Your task to perform on an android device: install app "Google Drive" Image 0: 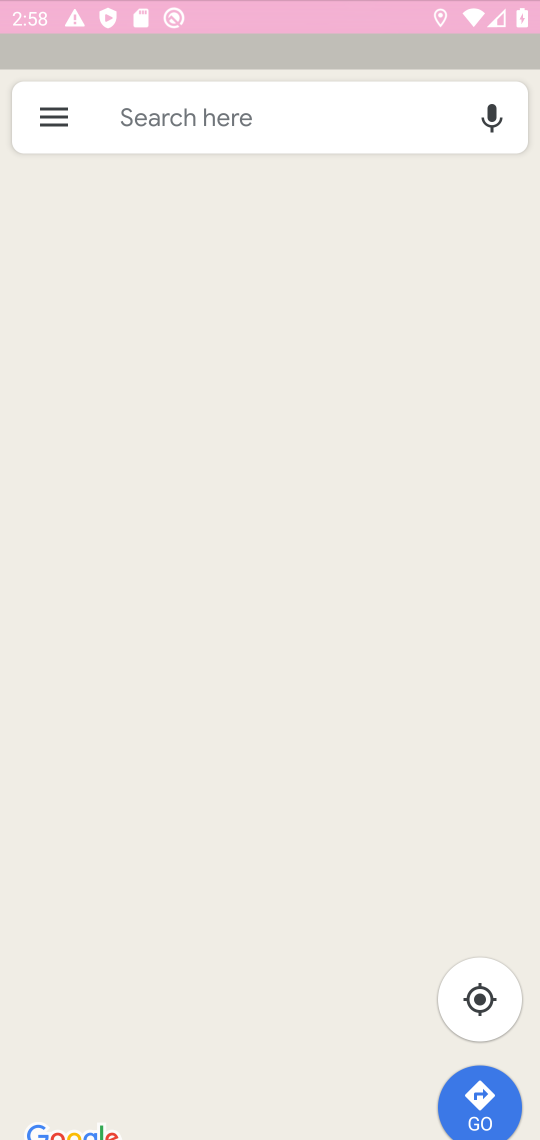
Step 0: click (40, 80)
Your task to perform on an android device: install app "Google Drive" Image 1: 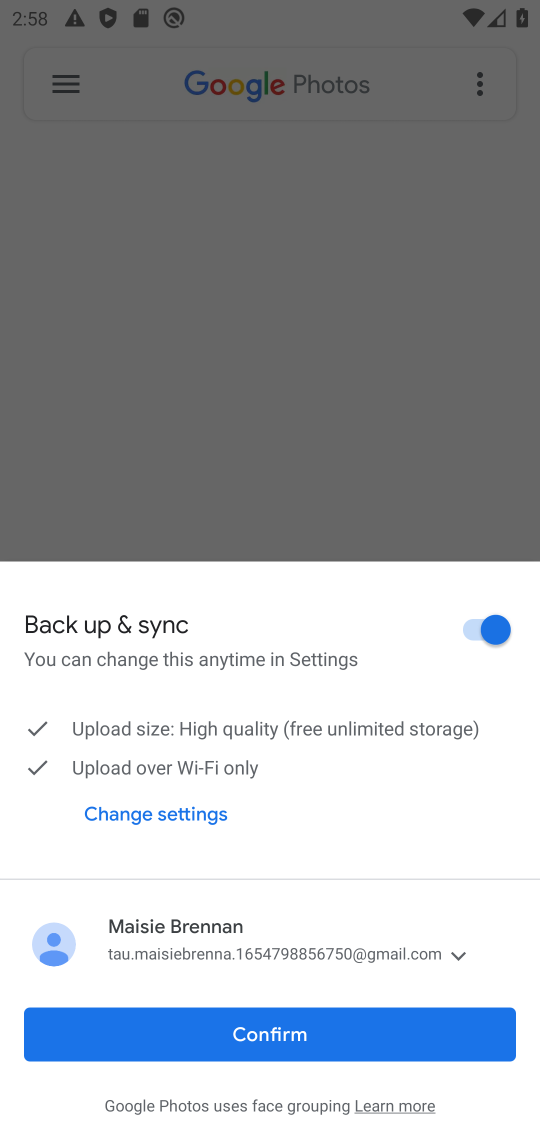
Step 1: press back button
Your task to perform on an android device: install app "Google Drive" Image 2: 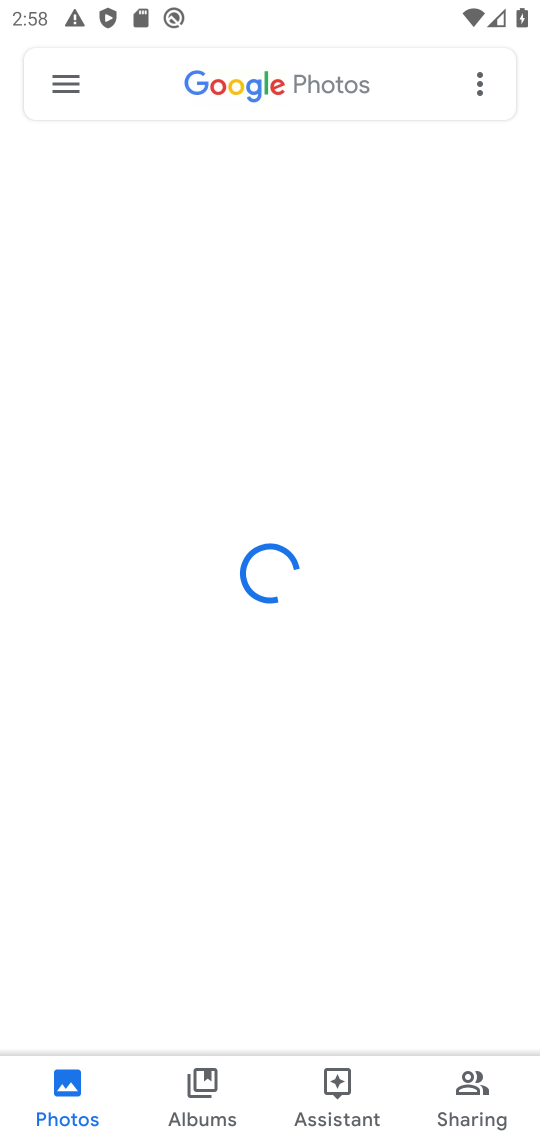
Step 2: press back button
Your task to perform on an android device: install app "Google Drive" Image 3: 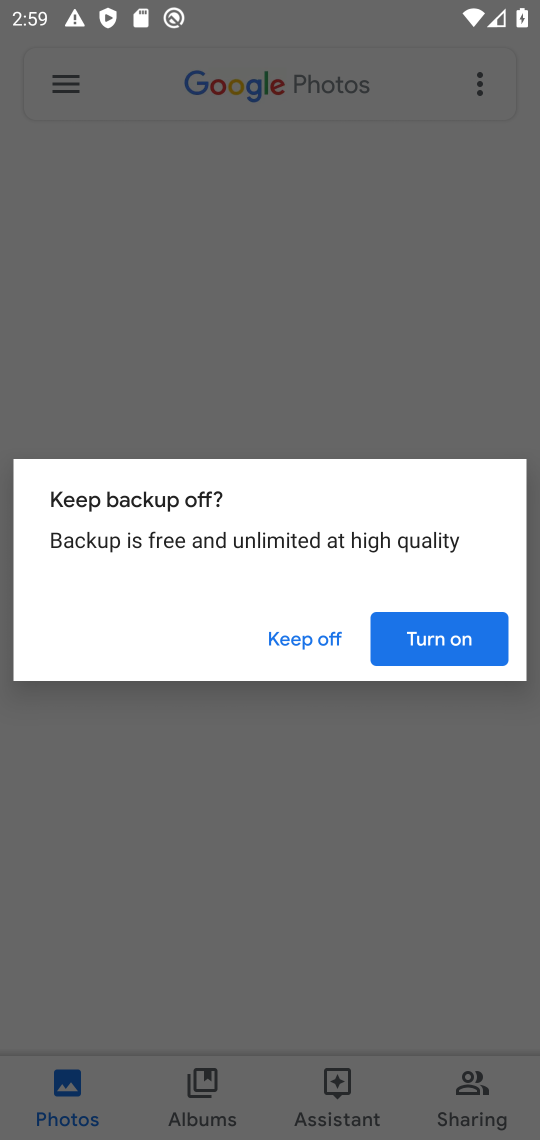
Step 3: press back button
Your task to perform on an android device: install app "Google Drive" Image 4: 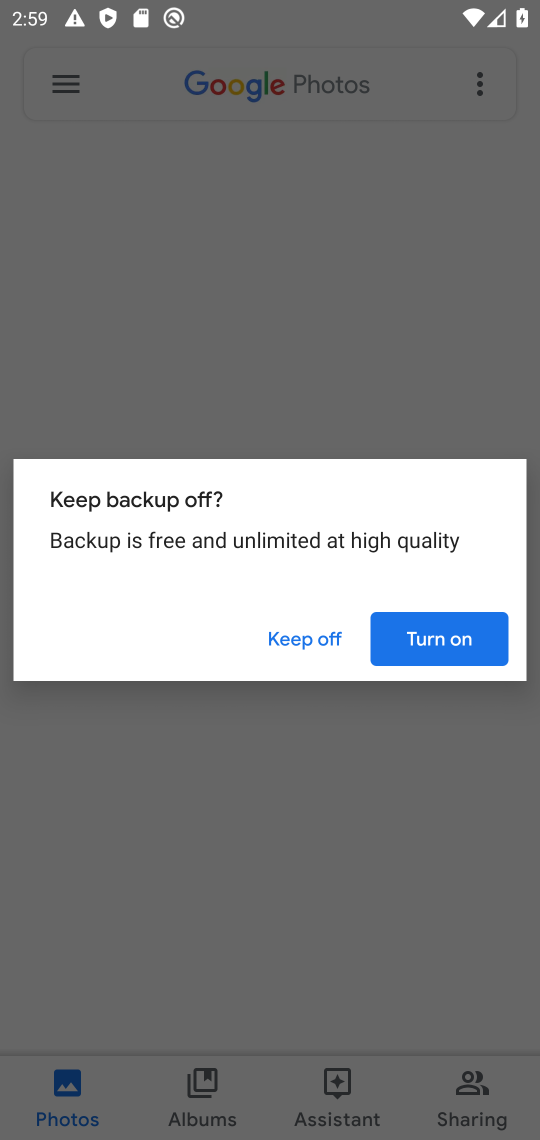
Step 4: press home button
Your task to perform on an android device: install app "Google Drive" Image 5: 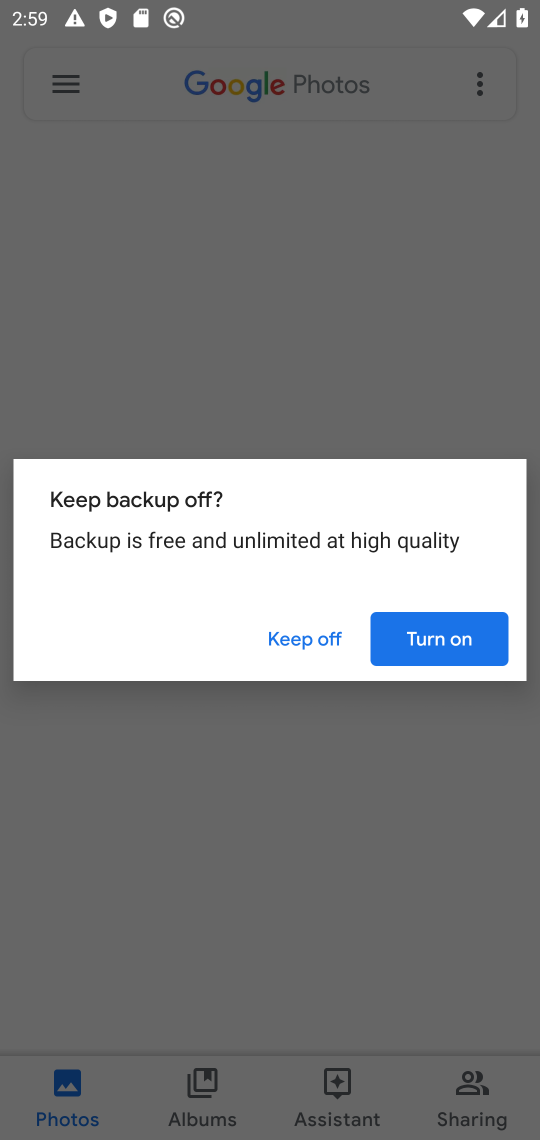
Step 5: click (322, 640)
Your task to perform on an android device: install app "Google Drive" Image 6: 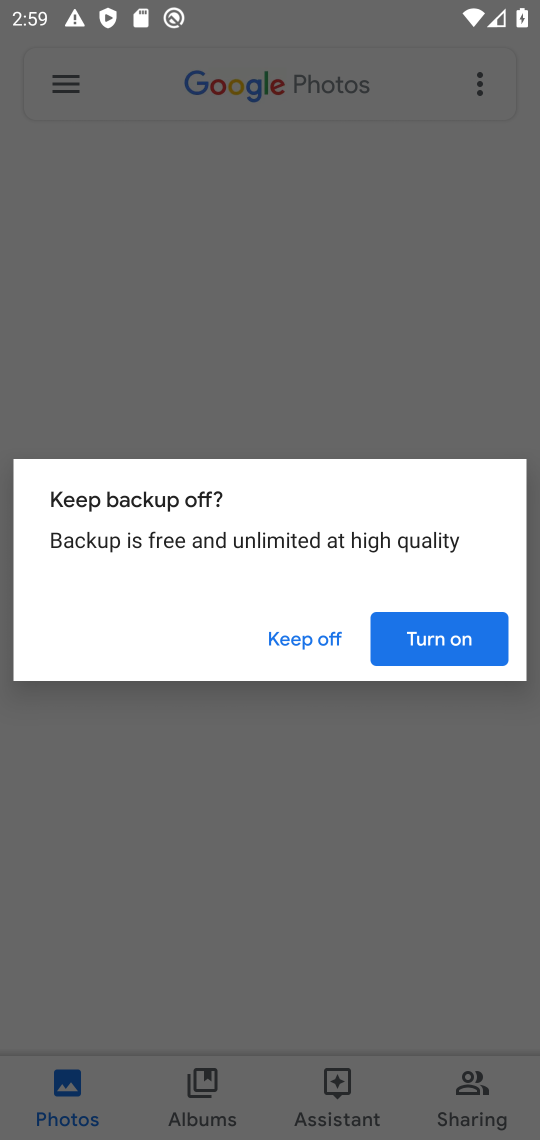
Step 6: press back button
Your task to perform on an android device: install app "Google Drive" Image 7: 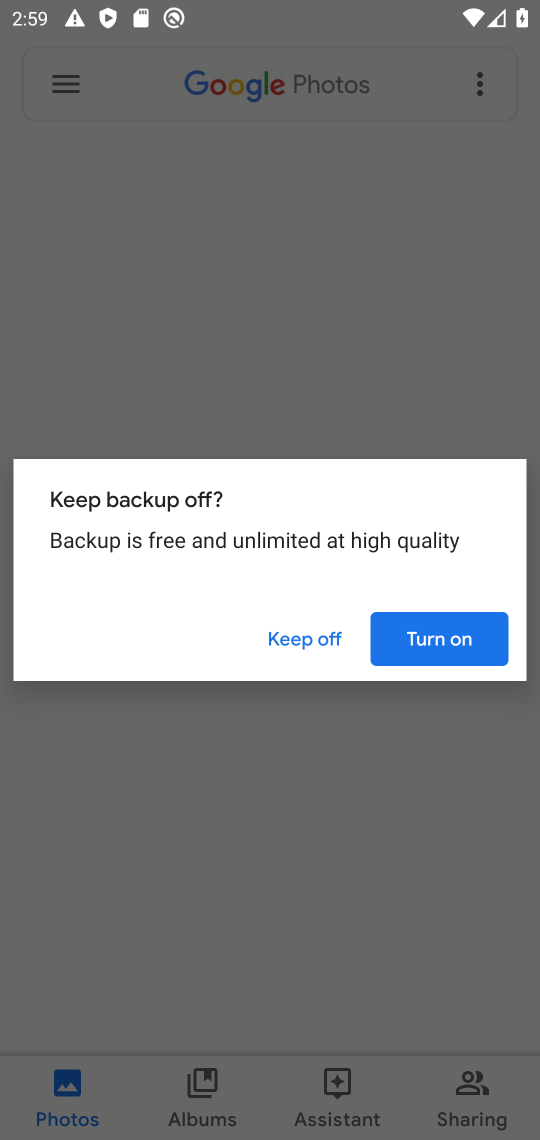
Step 7: click (319, 621)
Your task to perform on an android device: install app "Google Drive" Image 8: 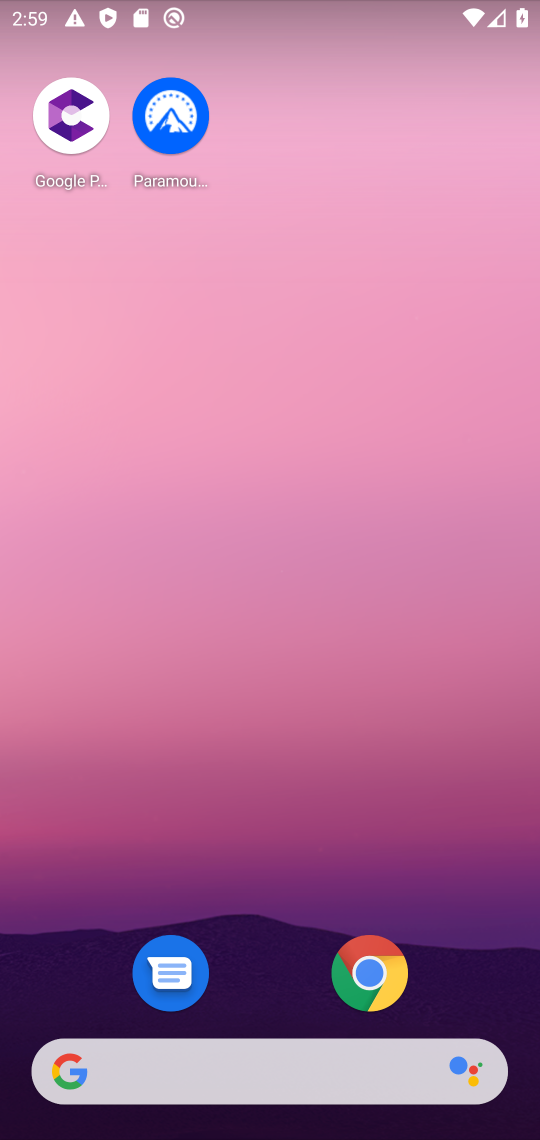
Step 8: click (346, 251)
Your task to perform on an android device: install app "Google Drive" Image 9: 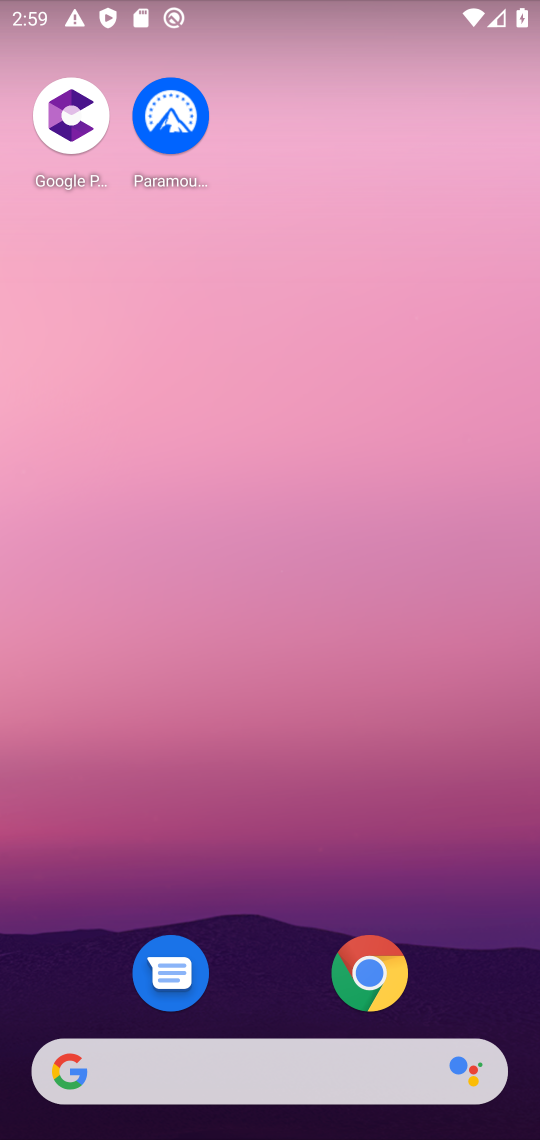
Step 9: drag from (324, 936) to (279, 363)
Your task to perform on an android device: install app "Google Drive" Image 10: 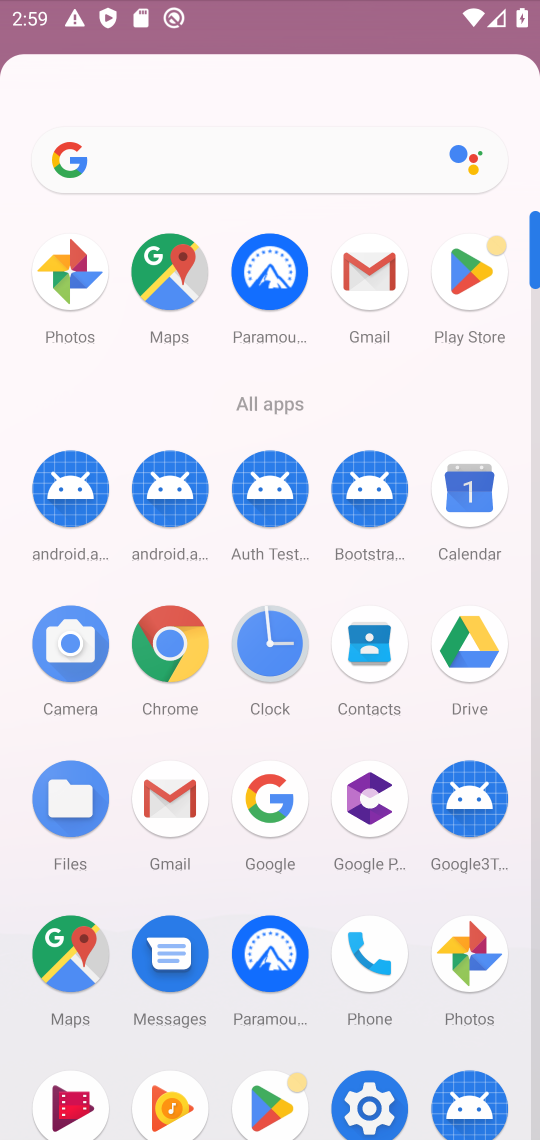
Step 10: drag from (194, 566) to (51, 81)
Your task to perform on an android device: install app "Google Drive" Image 11: 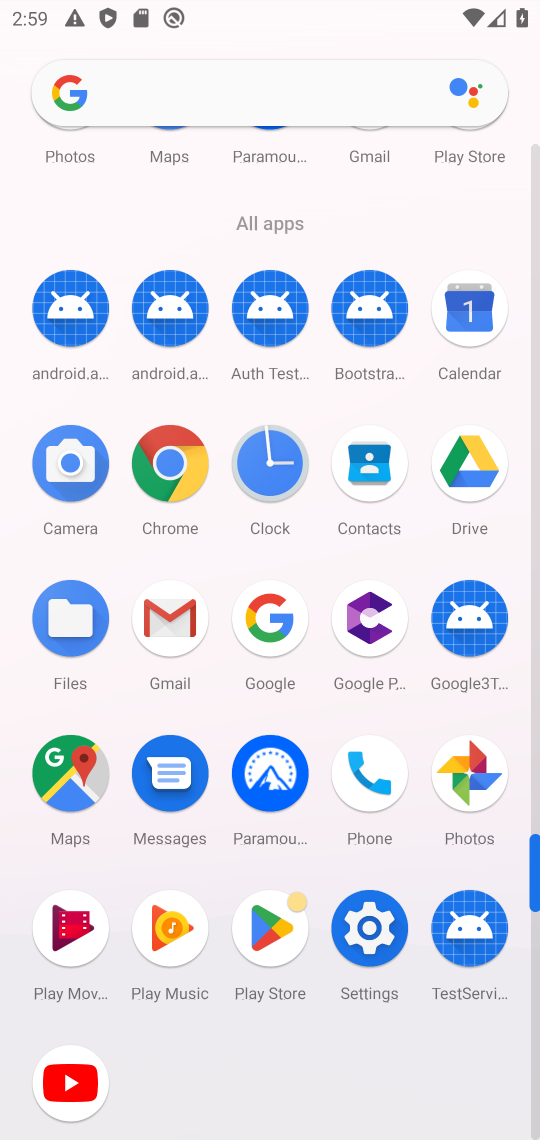
Step 11: click (276, 916)
Your task to perform on an android device: install app "Google Drive" Image 12: 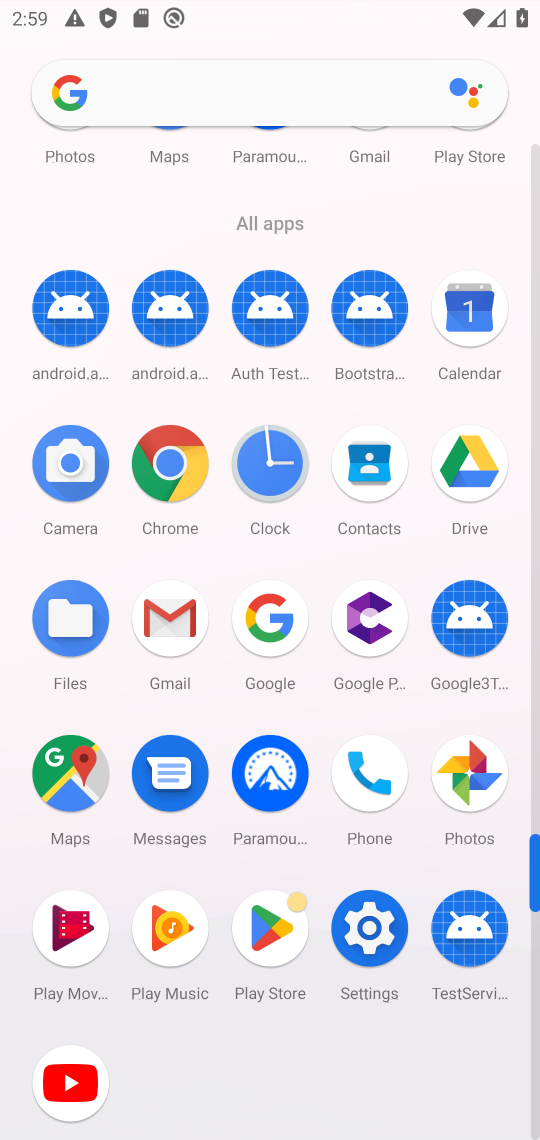
Step 12: click (290, 922)
Your task to perform on an android device: install app "Google Drive" Image 13: 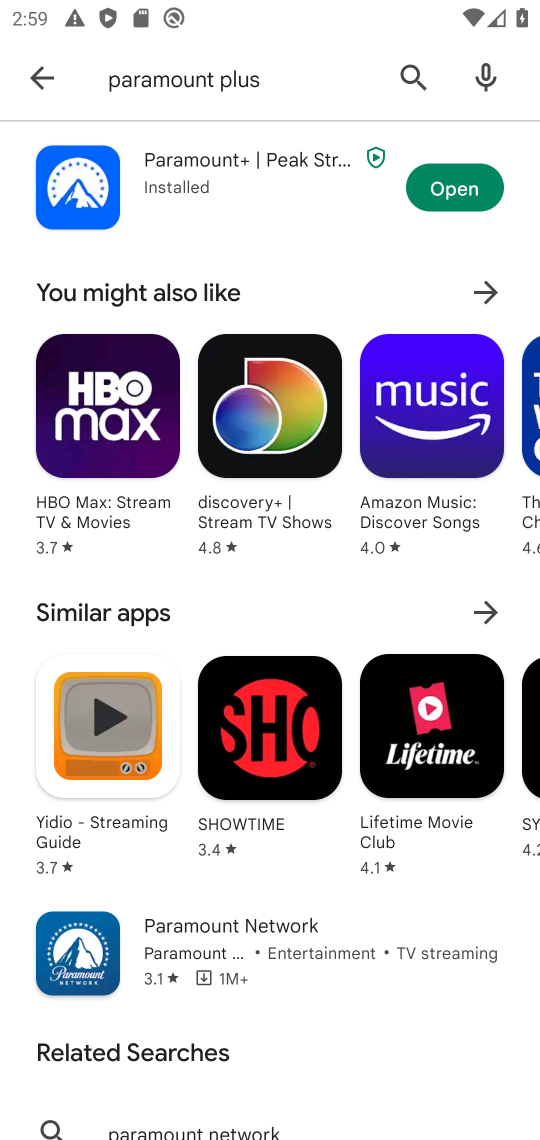
Step 13: click (261, 922)
Your task to perform on an android device: install app "Google Drive" Image 14: 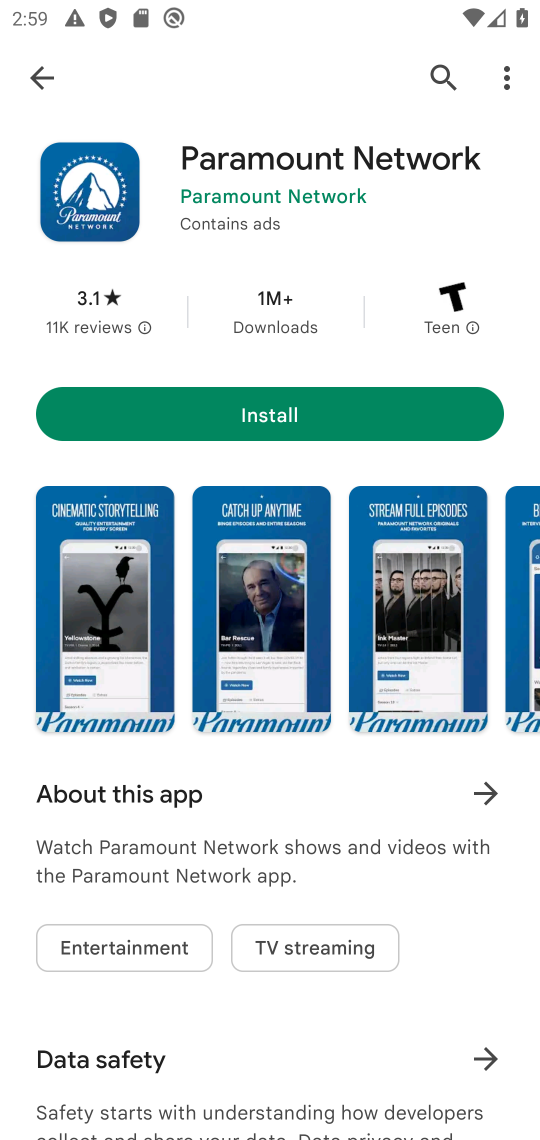
Step 14: click (47, 66)
Your task to perform on an android device: install app "Google Drive" Image 15: 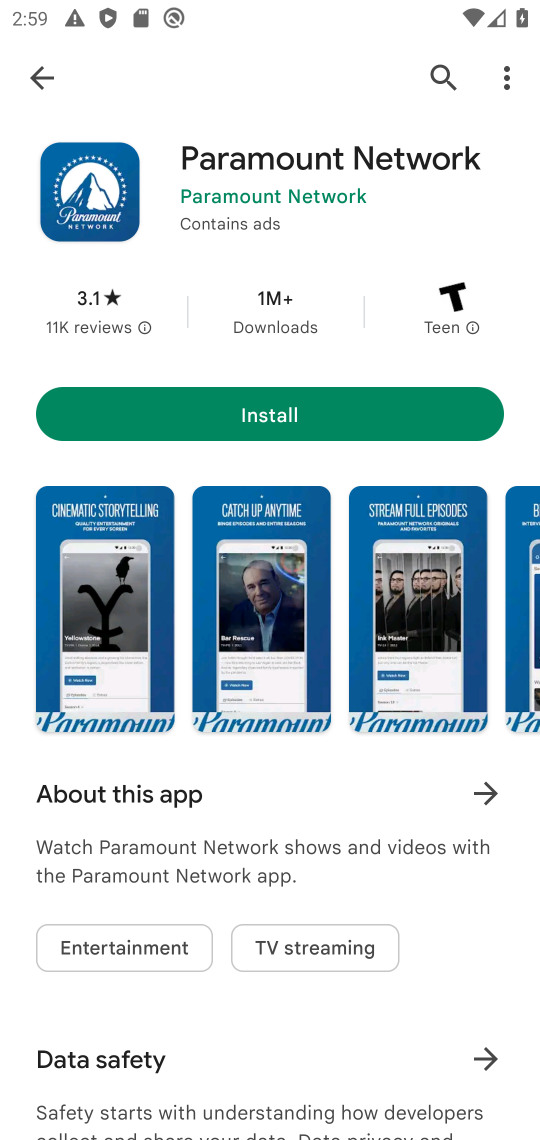
Step 15: click (47, 66)
Your task to perform on an android device: install app "Google Drive" Image 16: 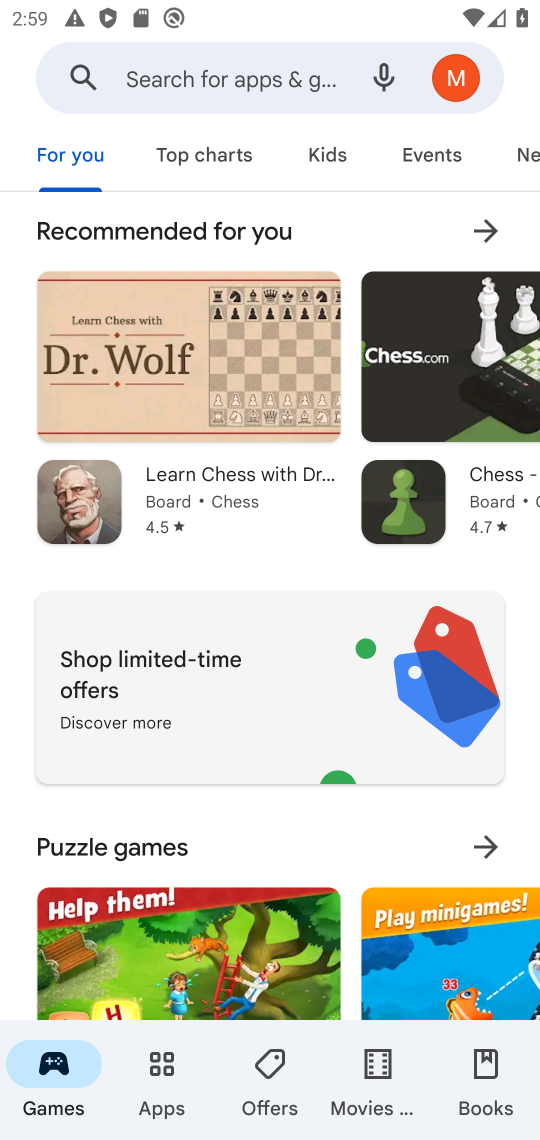
Step 16: click (160, 79)
Your task to perform on an android device: install app "Google Drive" Image 17: 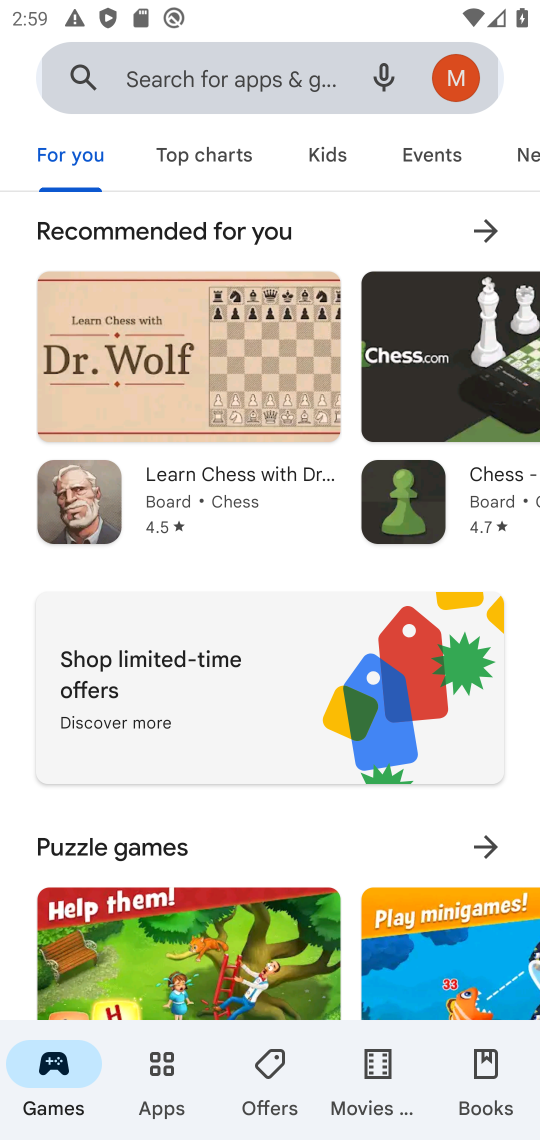
Step 17: click (160, 79)
Your task to perform on an android device: install app "Google Drive" Image 18: 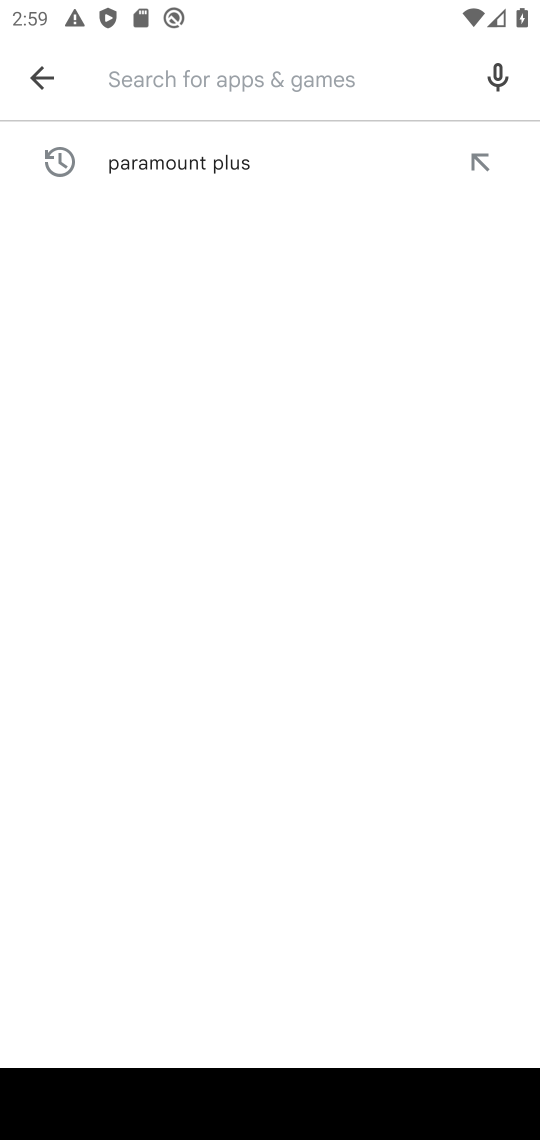
Step 18: type "Google drive"
Your task to perform on an android device: install app "Google Drive" Image 19: 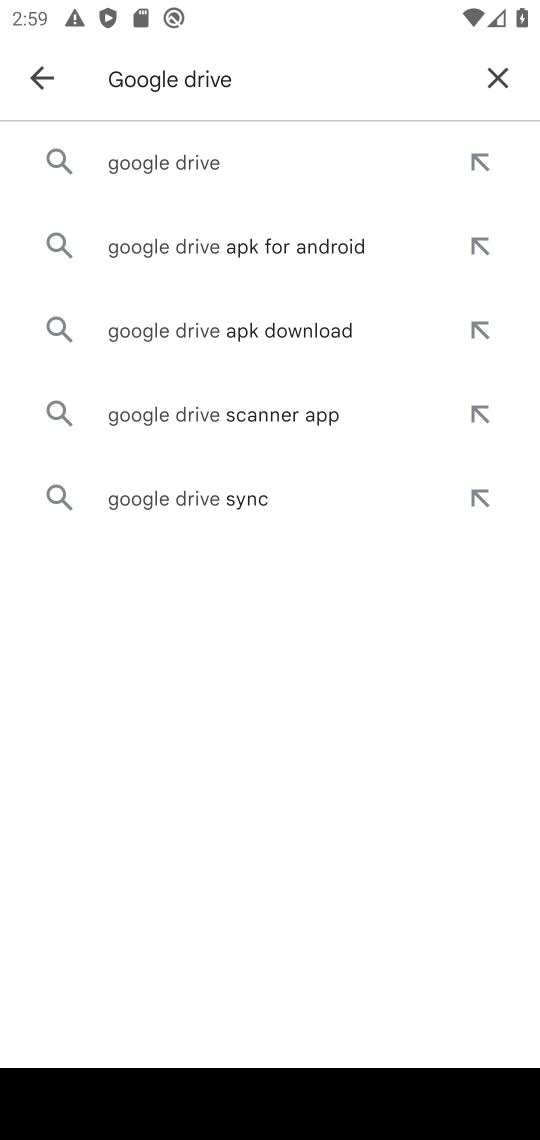
Step 19: click (186, 164)
Your task to perform on an android device: install app "Google Drive" Image 20: 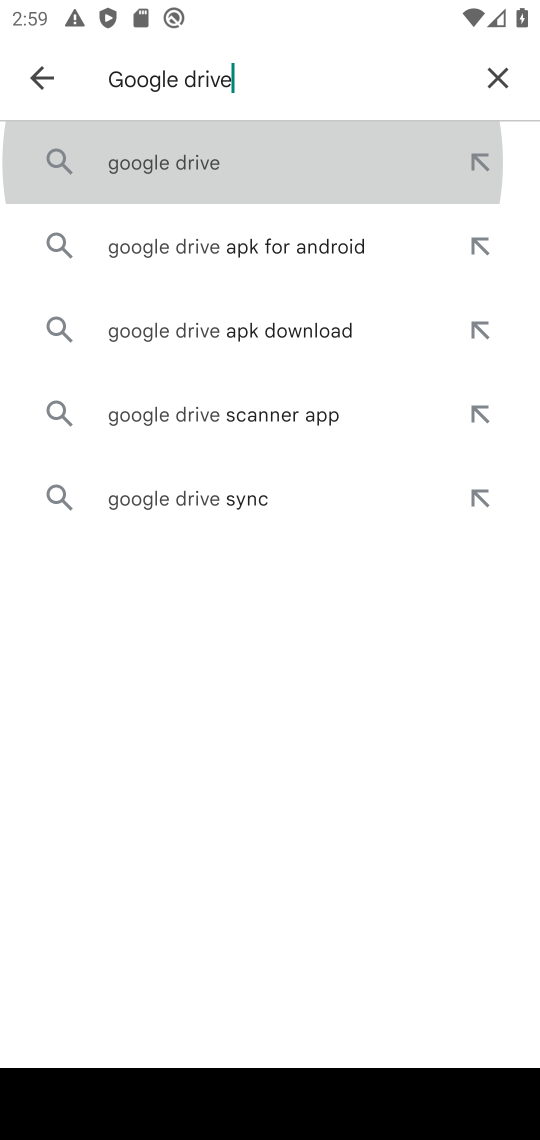
Step 20: click (148, 139)
Your task to perform on an android device: install app "Google Drive" Image 21: 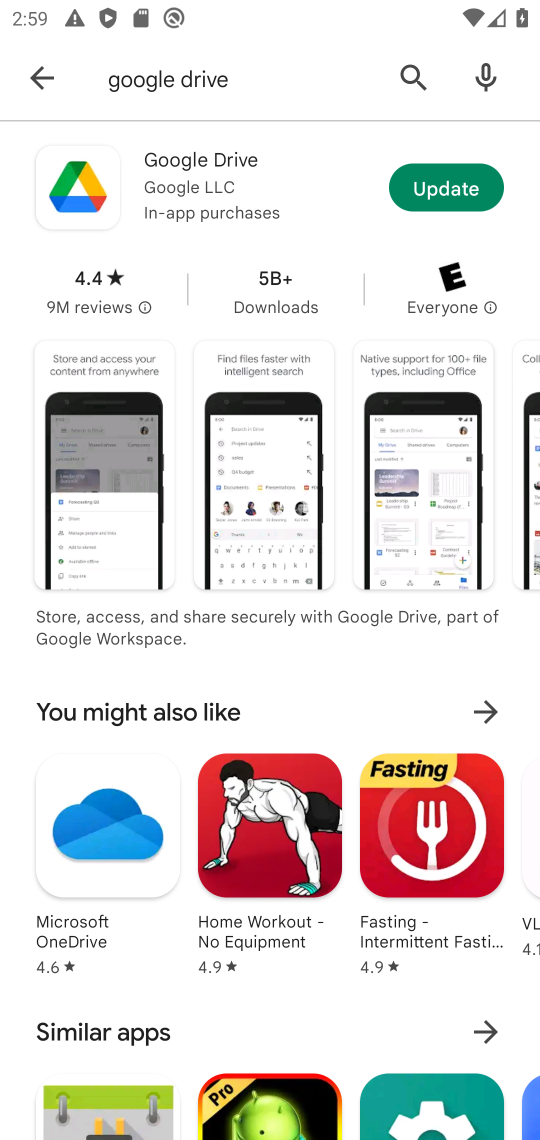
Step 21: click (432, 182)
Your task to perform on an android device: install app "Google Drive" Image 22: 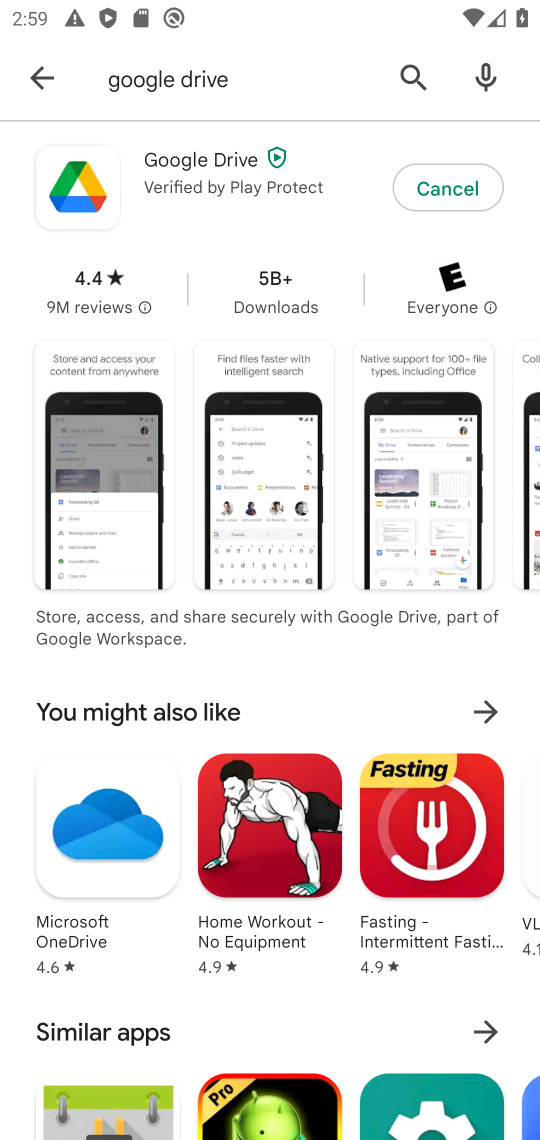
Step 22: click (436, 183)
Your task to perform on an android device: install app "Google Drive" Image 23: 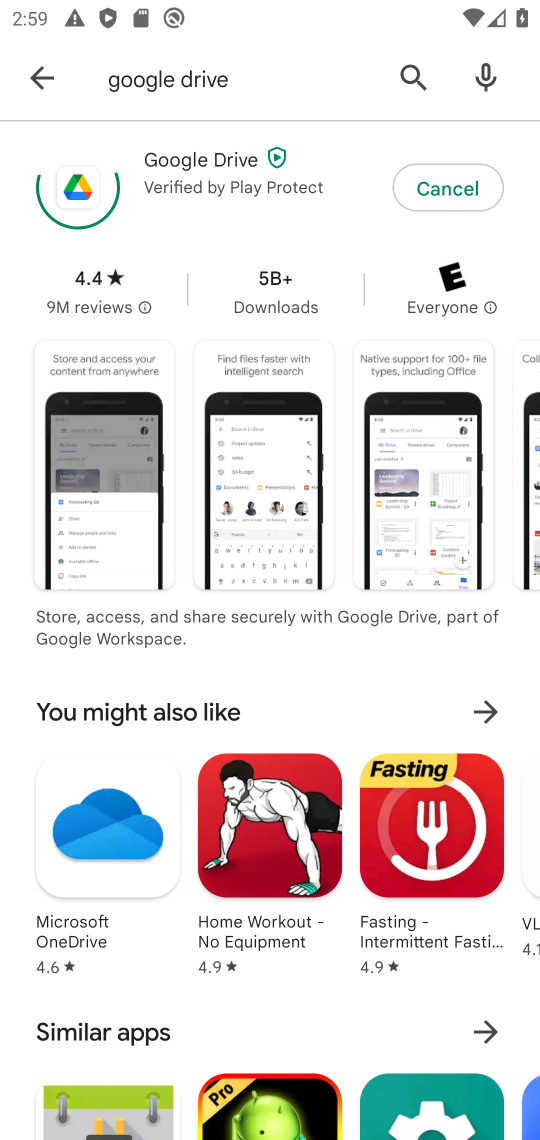
Step 23: click (436, 194)
Your task to perform on an android device: install app "Google Drive" Image 24: 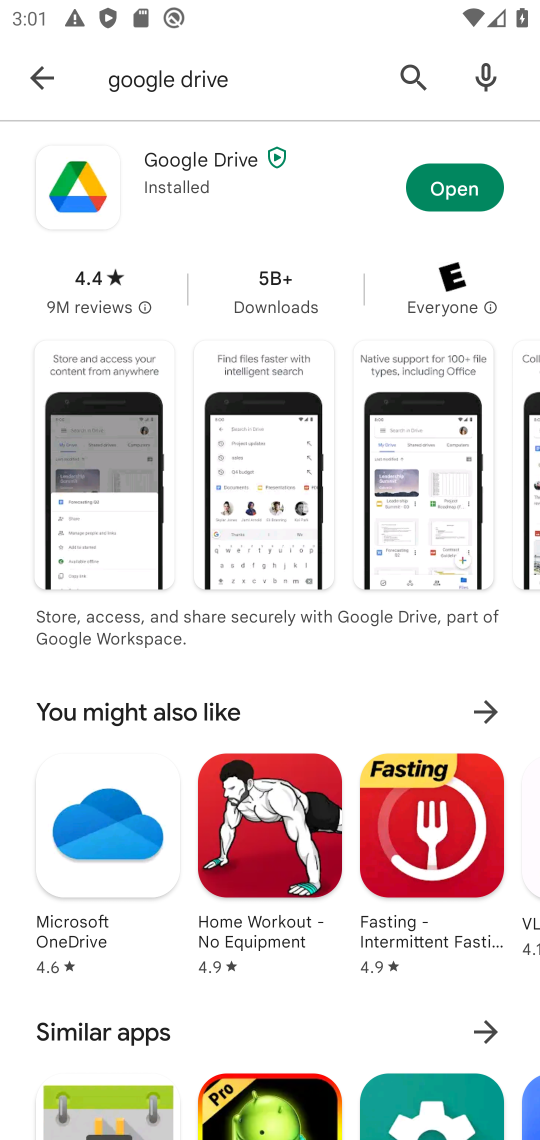
Step 24: click (486, 189)
Your task to perform on an android device: install app "Google Drive" Image 25: 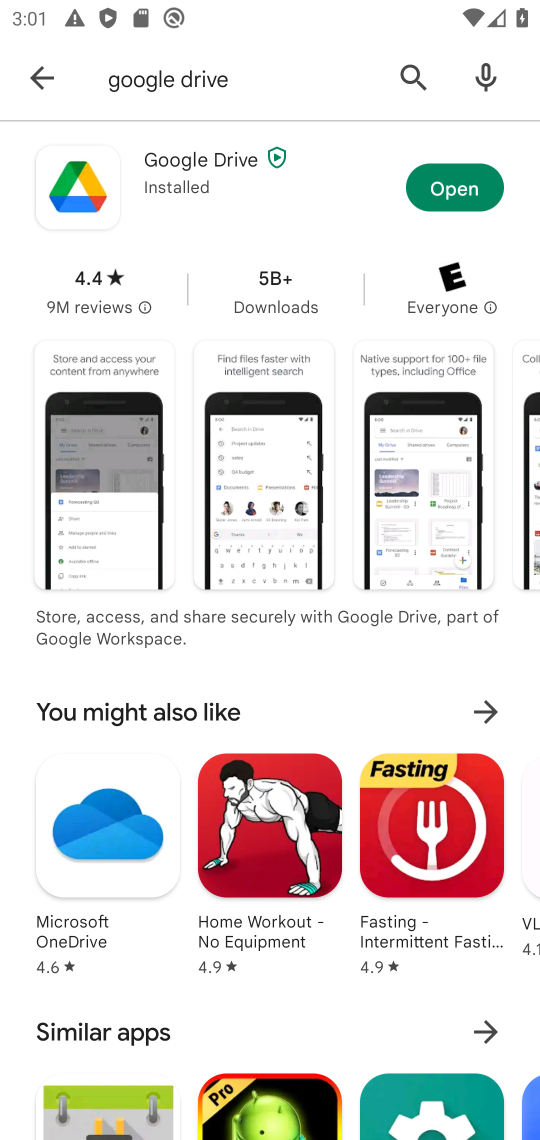
Step 25: click (486, 189)
Your task to perform on an android device: install app "Google Drive" Image 26: 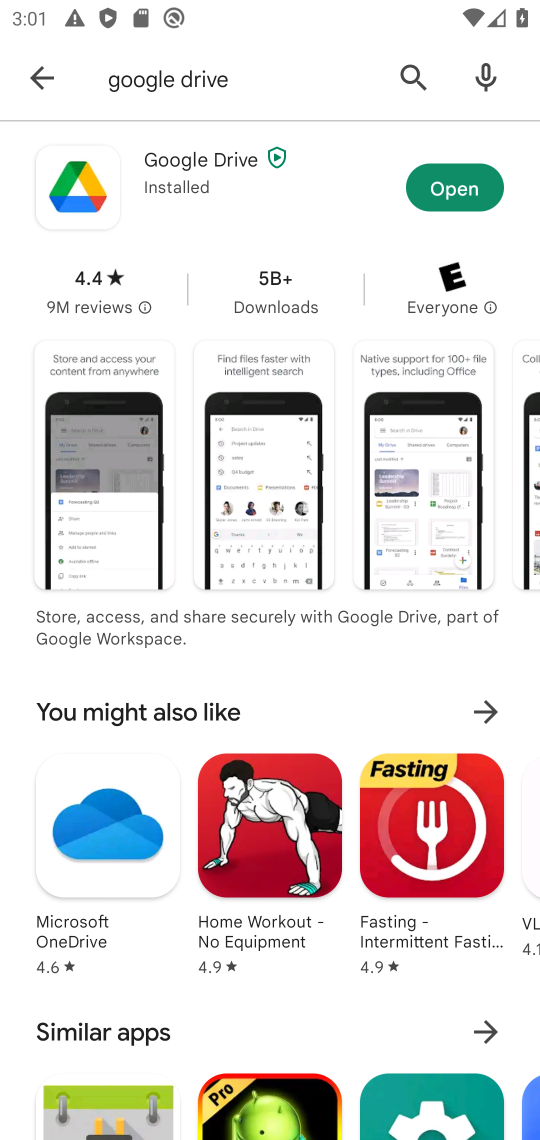
Step 26: click (460, 175)
Your task to perform on an android device: install app "Google Drive" Image 27: 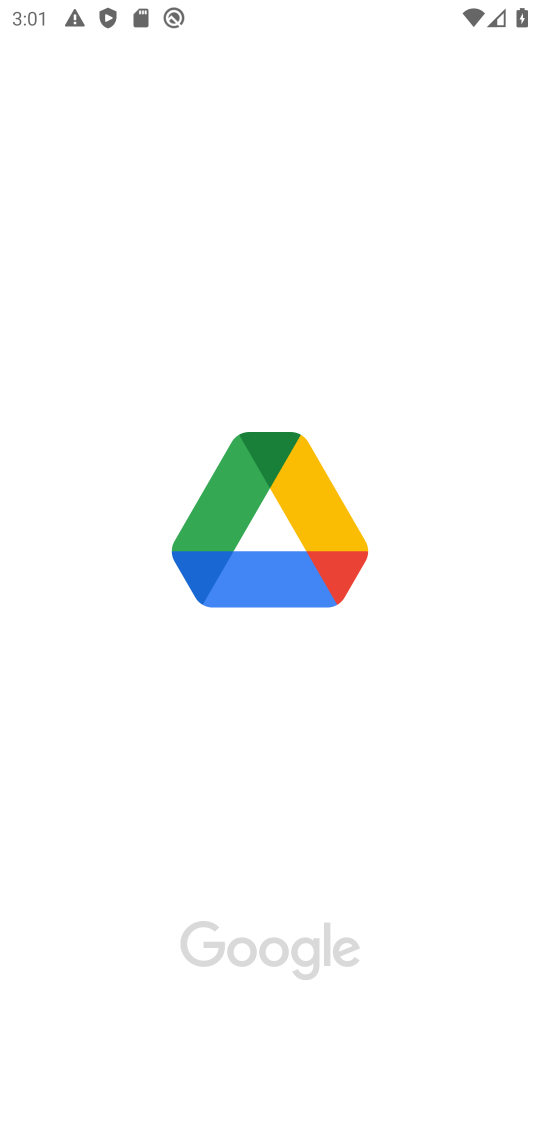
Step 27: click (460, 175)
Your task to perform on an android device: install app "Google Drive" Image 28: 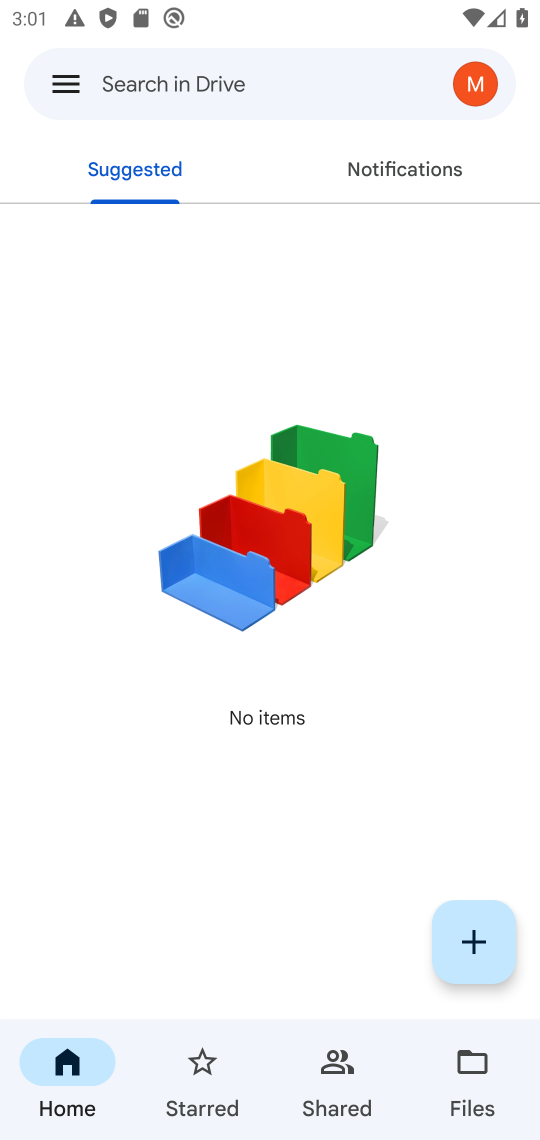
Step 28: task complete